Your task to perform on an android device: Open calendar and show me the fourth week of next month Image 0: 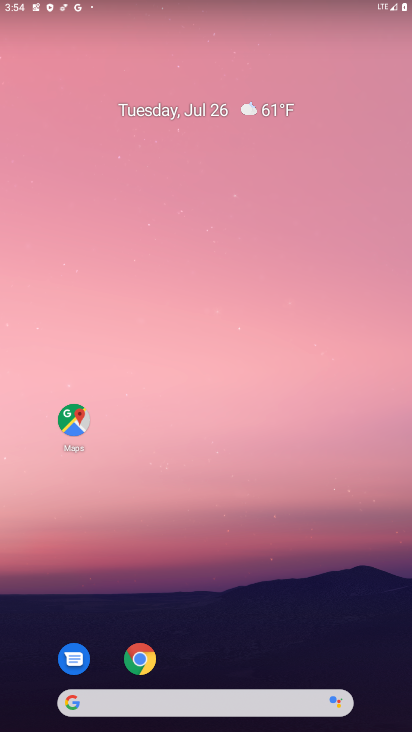
Step 0: drag from (320, 642) to (255, 46)
Your task to perform on an android device: Open calendar and show me the fourth week of next month Image 1: 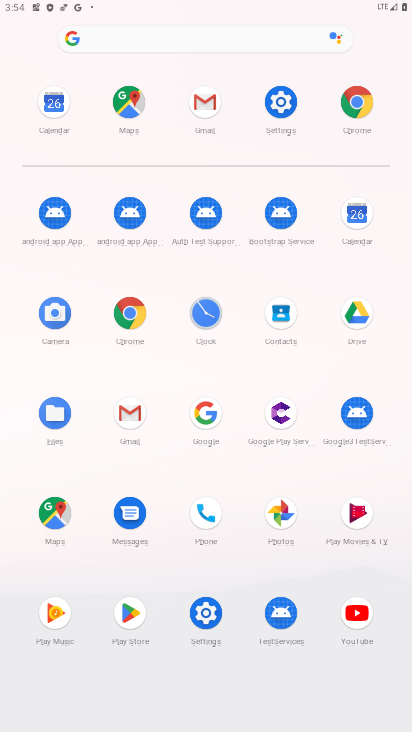
Step 1: click (356, 204)
Your task to perform on an android device: Open calendar and show me the fourth week of next month Image 2: 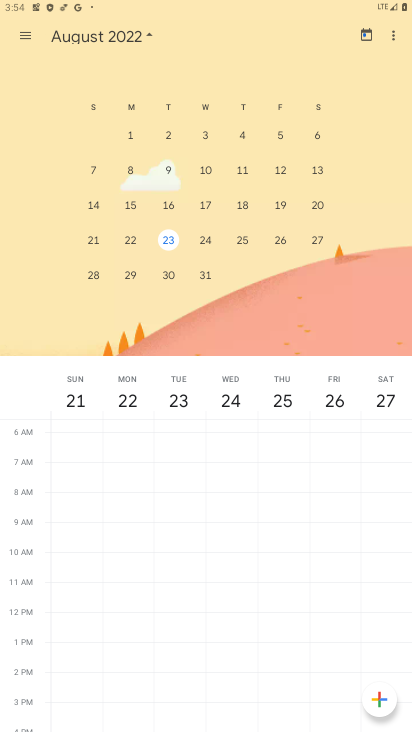
Step 2: task complete